Your task to perform on an android device: Open ESPN.com Image 0: 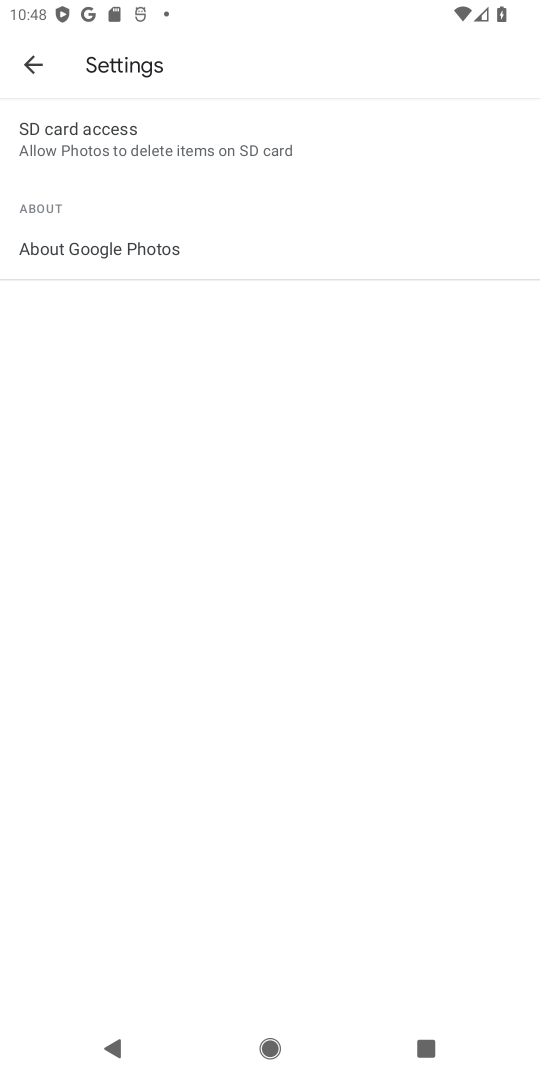
Step 0: press home button
Your task to perform on an android device: Open ESPN.com Image 1: 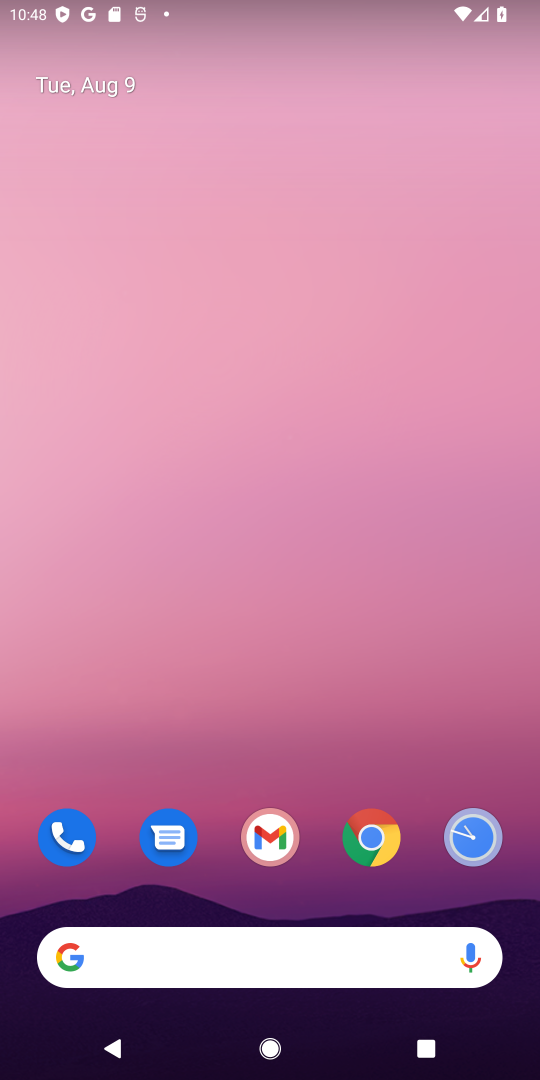
Step 1: click (369, 838)
Your task to perform on an android device: Open ESPN.com Image 2: 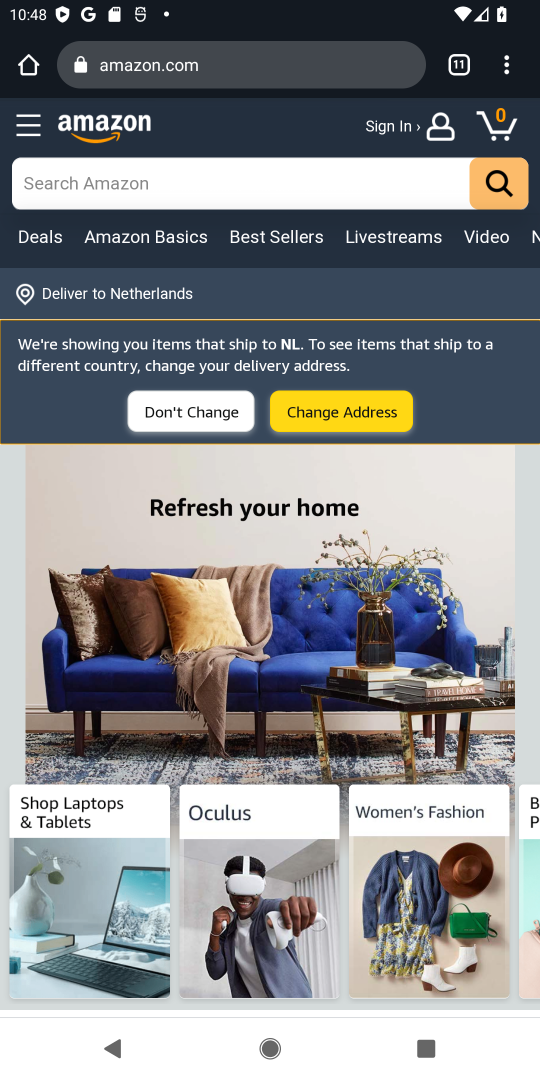
Step 2: click (511, 70)
Your task to perform on an android device: Open ESPN.com Image 3: 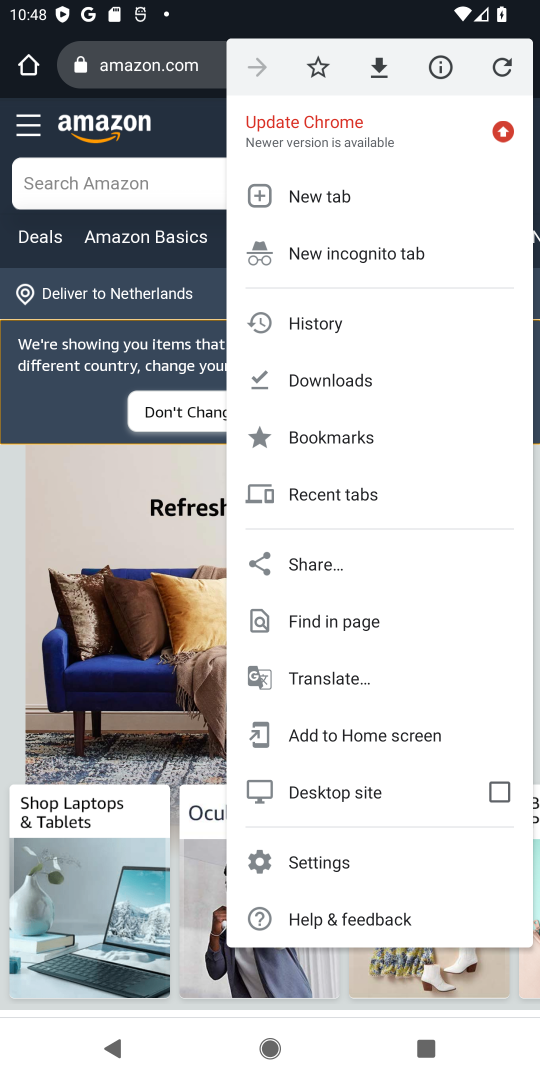
Step 3: click (311, 190)
Your task to perform on an android device: Open ESPN.com Image 4: 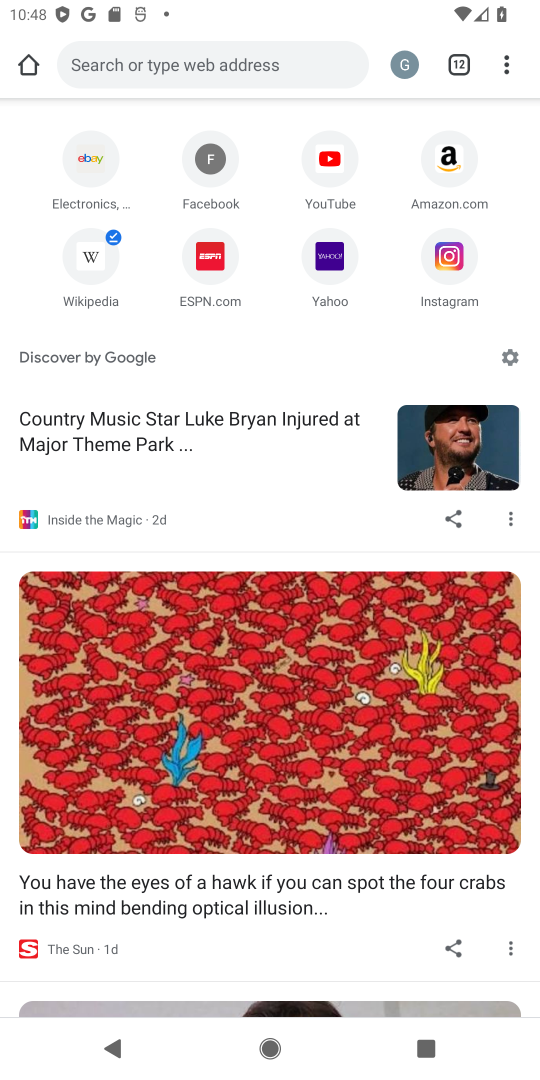
Step 4: click (195, 261)
Your task to perform on an android device: Open ESPN.com Image 5: 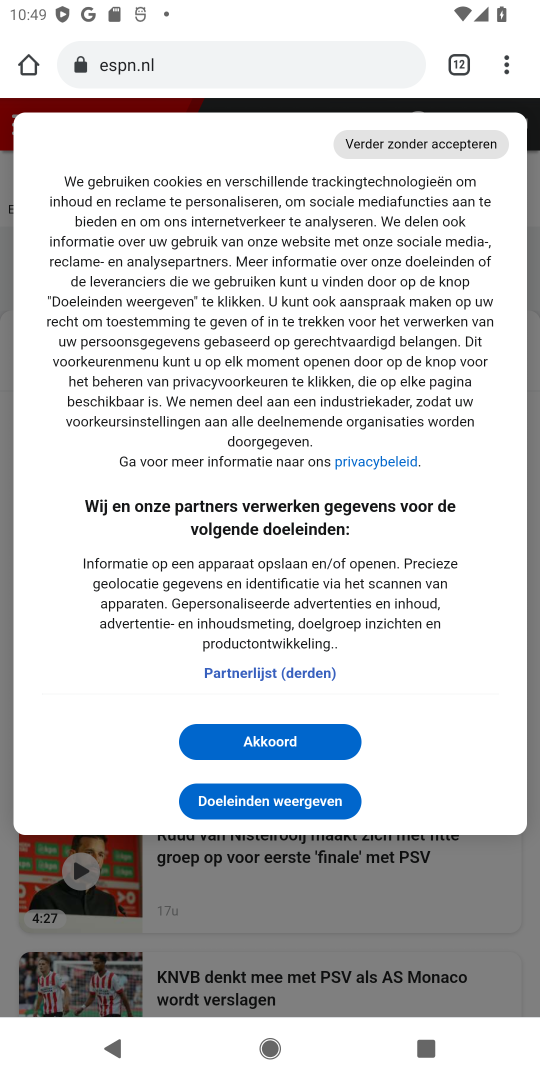
Step 5: click (282, 734)
Your task to perform on an android device: Open ESPN.com Image 6: 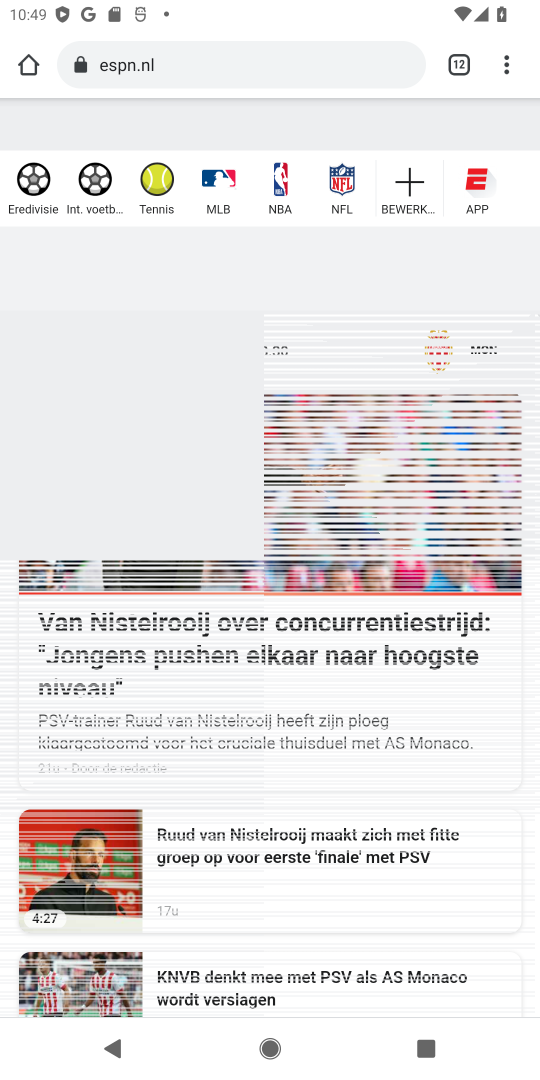
Step 6: task complete